Your task to perform on an android device: Go to wifi settings Image 0: 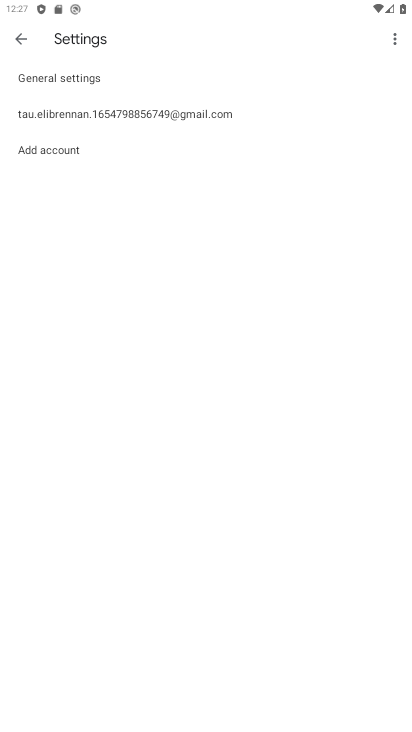
Step 0: press home button
Your task to perform on an android device: Go to wifi settings Image 1: 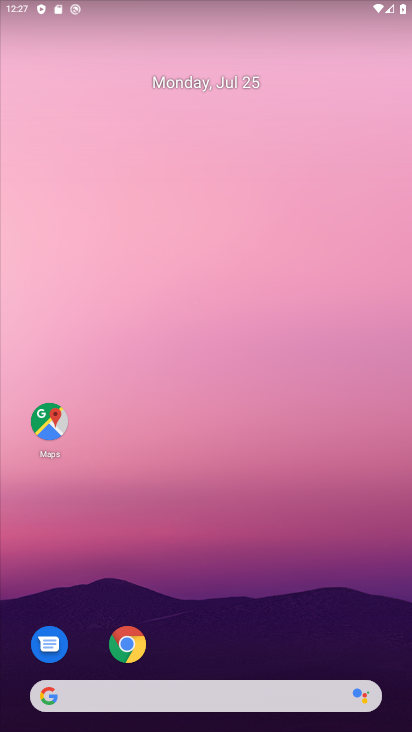
Step 1: click (216, 111)
Your task to perform on an android device: Go to wifi settings Image 2: 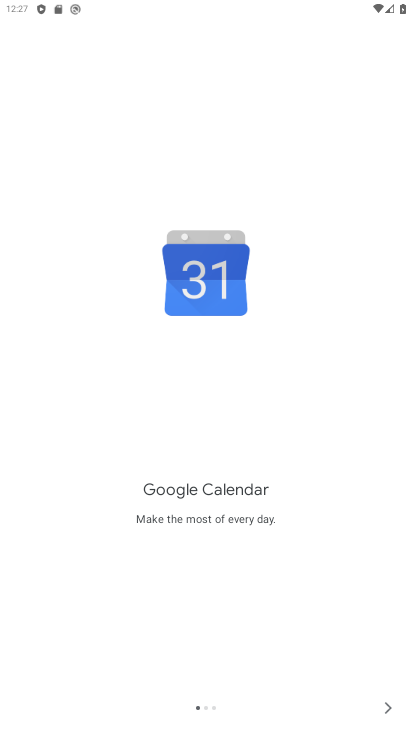
Step 2: press home button
Your task to perform on an android device: Go to wifi settings Image 3: 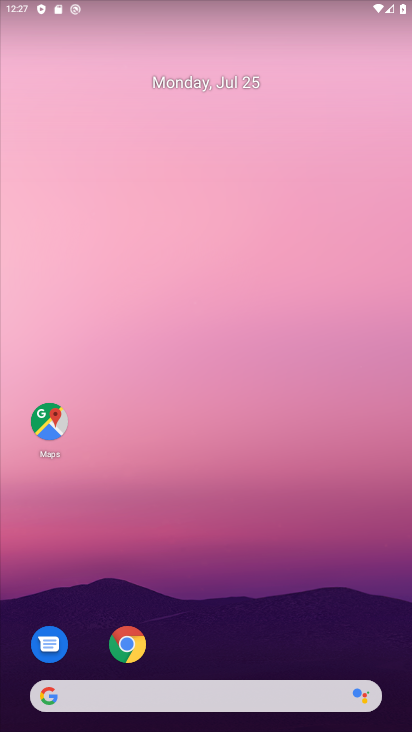
Step 3: drag from (219, 666) to (249, 97)
Your task to perform on an android device: Go to wifi settings Image 4: 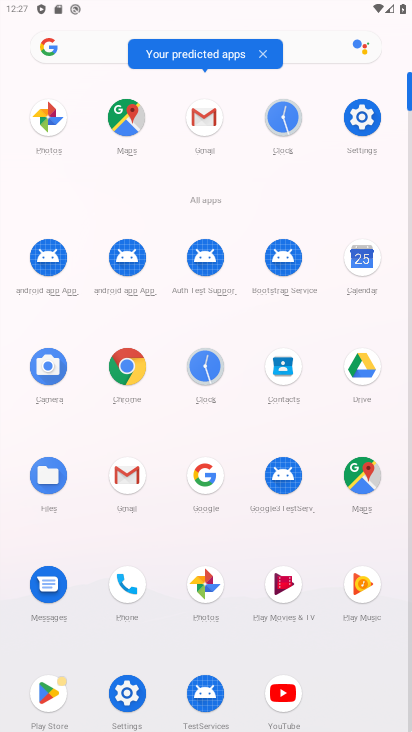
Step 4: click (362, 111)
Your task to perform on an android device: Go to wifi settings Image 5: 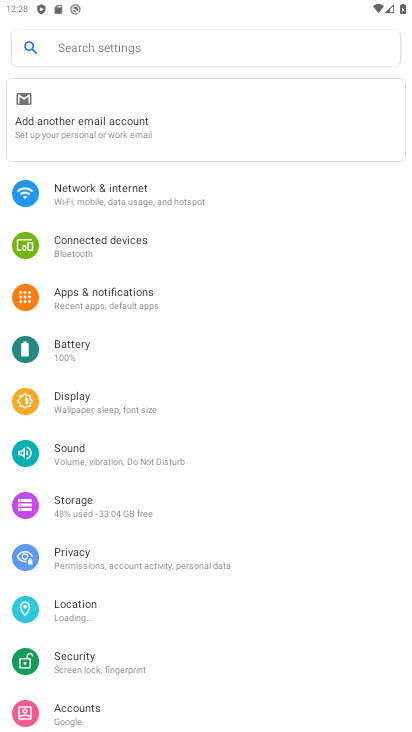
Step 5: click (95, 196)
Your task to perform on an android device: Go to wifi settings Image 6: 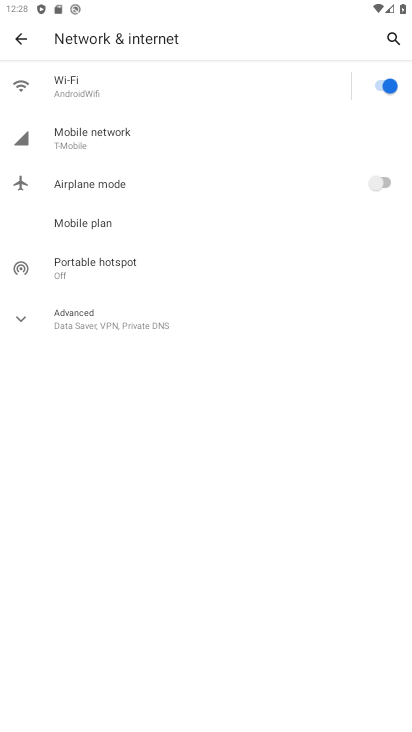
Step 6: click (65, 86)
Your task to perform on an android device: Go to wifi settings Image 7: 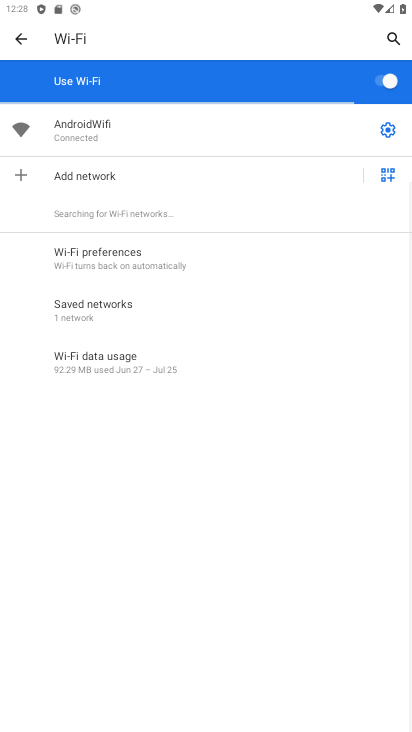
Step 7: task complete